Your task to perform on an android device: Open Amazon Image 0: 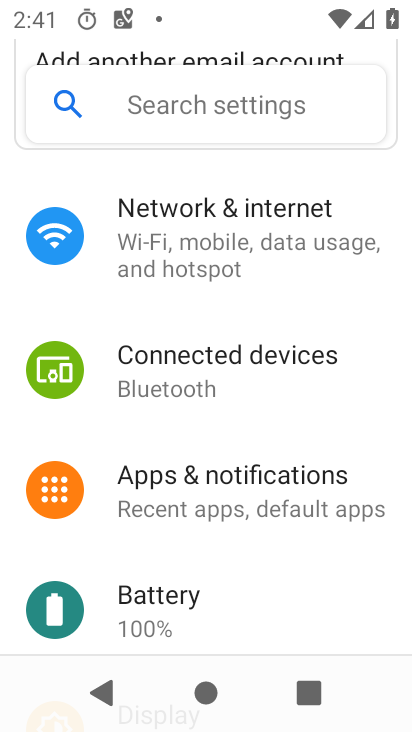
Step 0: press home button
Your task to perform on an android device: Open Amazon Image 1: 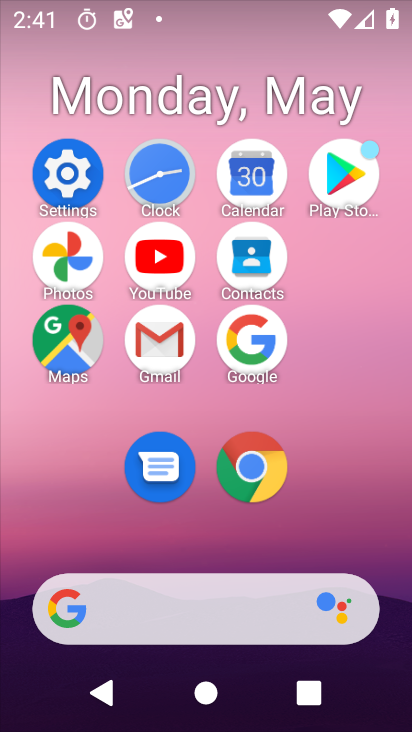
Step 1: click (248, 443)
Your task to perform on an android device: Open Amazon Image 2: 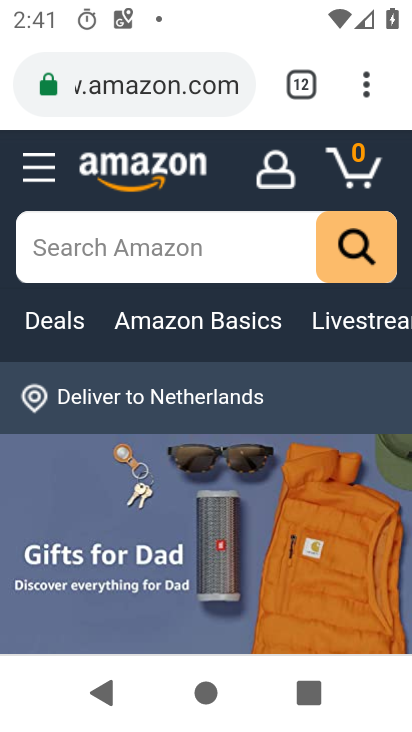
Step 2: task complete